Your task to perform on an android device: open sync settings in chrome Image 0: 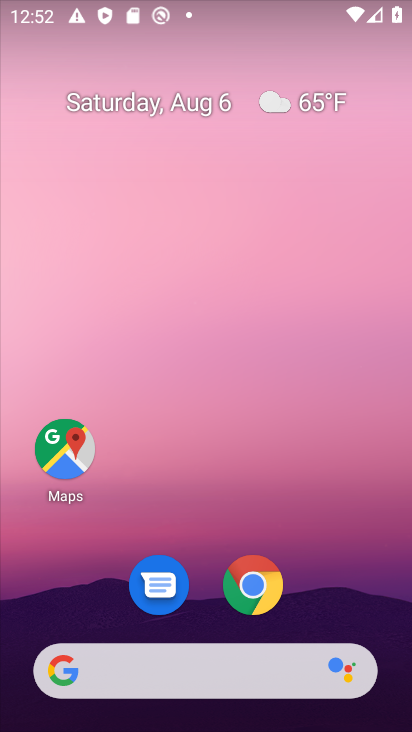
Step 0: click (262, 586)
Your task to perform on an android device: open sync settings in chrome Image 1: 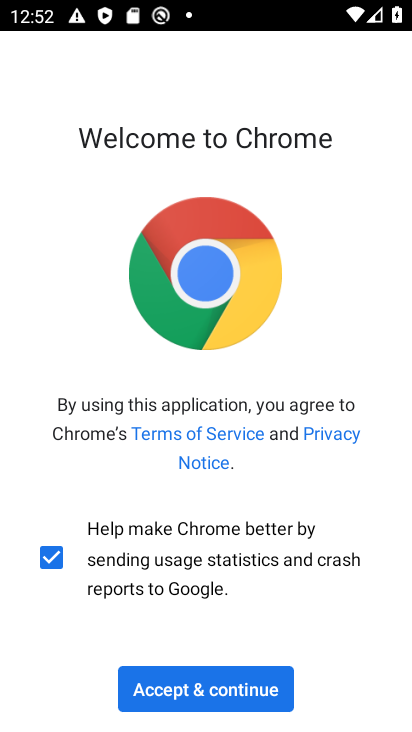
Step 1: click (257, 685)
Your task to perform on an android device: open sync settings in chrome Image 2: 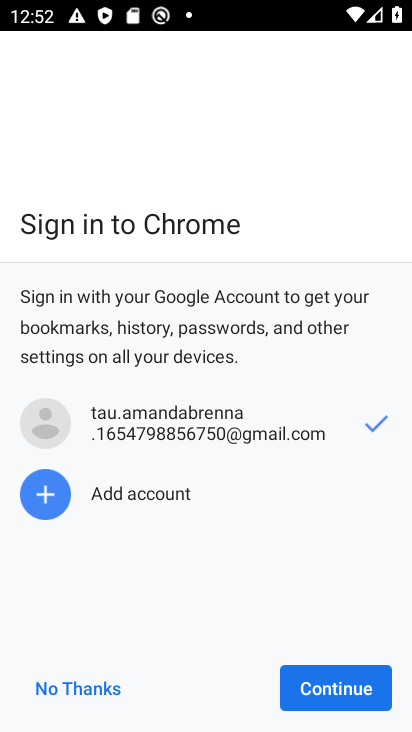
Step 2: click (304, 687)
Your task to perform on an android device: open sync settings in chrome Image 3: 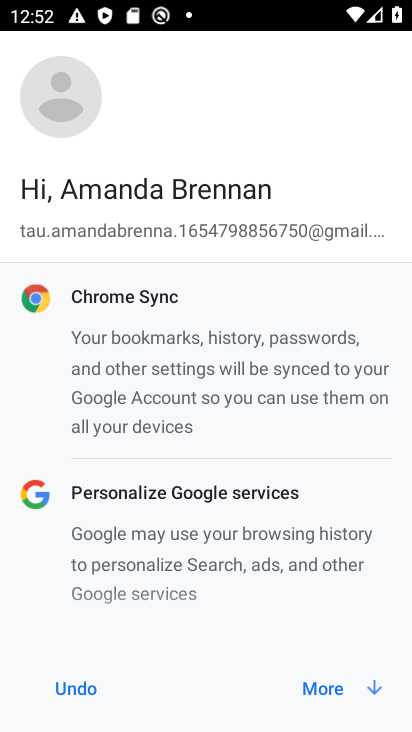
Step 3: click (304, 687)
Your task to perform on an android device: open sync settings in chrome Image 4: 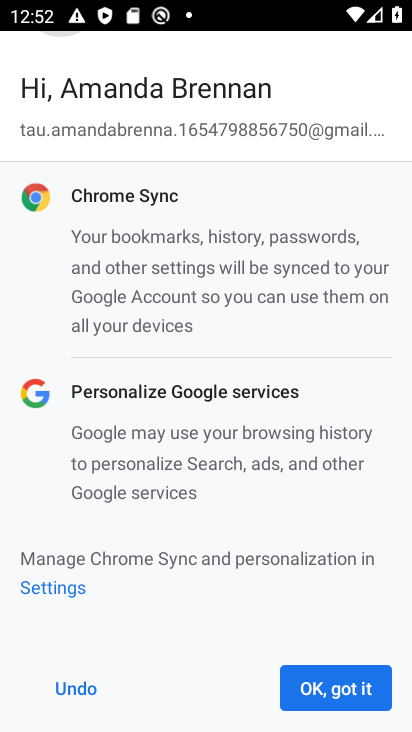
Step 4: click (304, 687)
Your task to perform on an android device: open sync settings in chrome Image 5: 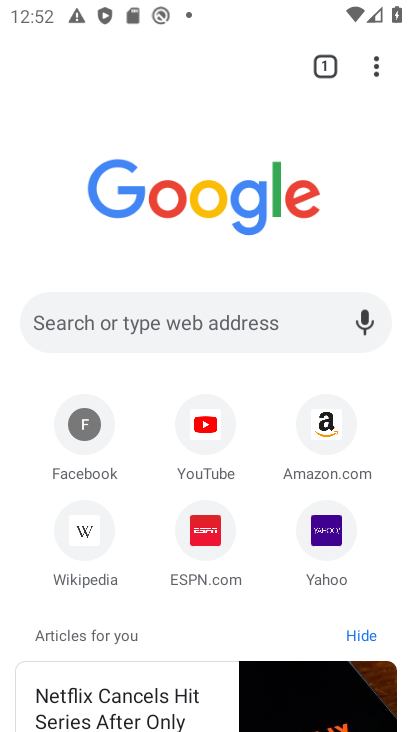
Step 5: click (375, 68)
Your task to perform on an android device: open sync settings in chrome Image 6: 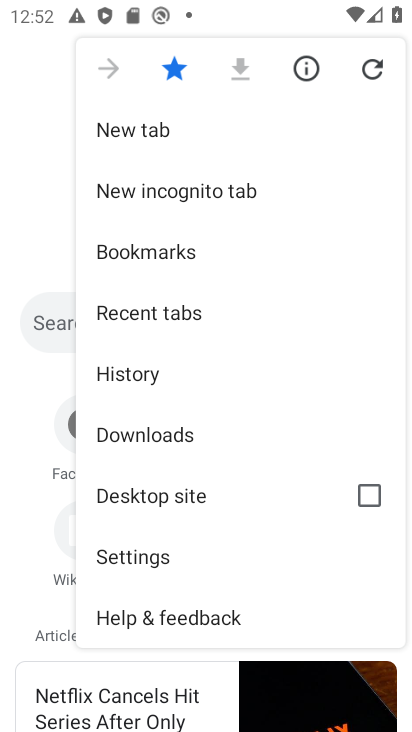
Step 6: click (164, 555)
Your task to perform on an android device: open sync settings in chrome Image 7: 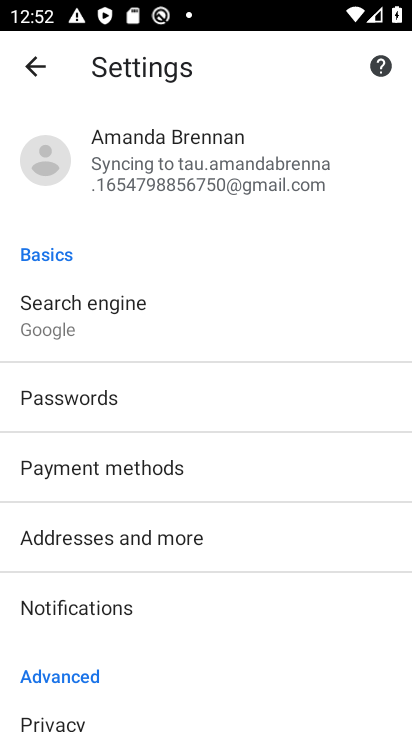
Step 7: click (253, 155)
Your task to perform on an android device: open sync settings in chrome Image 8: 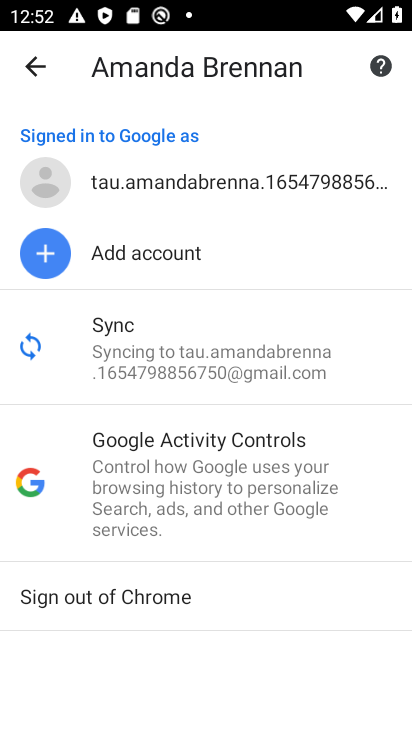
Step 8: click (227, 344)
Your task to perform on an android device: open sync settings in chrome Image 9: 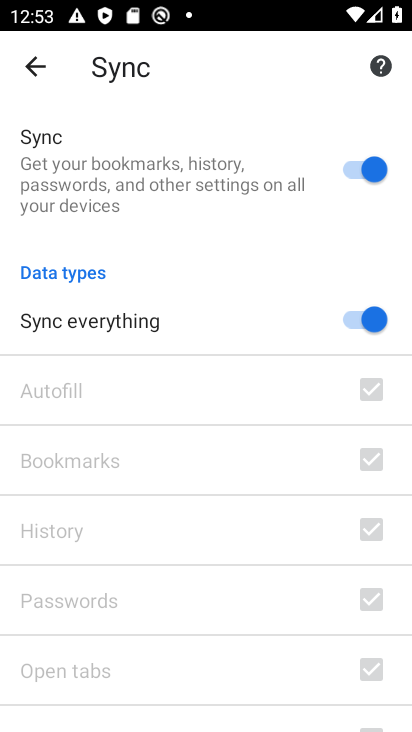
Step 9: task complete